Your task to perform on an android device: Clear all items from cart on costco. Search for "beats solo 3" on costco, select the first entry, add it to the cart, then select checkout. Image 0: 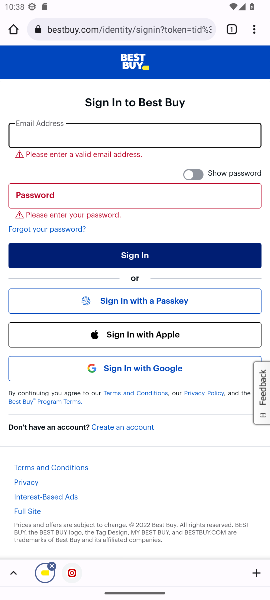
Step 0: press home button
Your task to perform on an android device: Clear all items from cart on costco. Search for "beats solo 3" on costco, select the first entry, add it to the cart, then select checkout. Image 1: 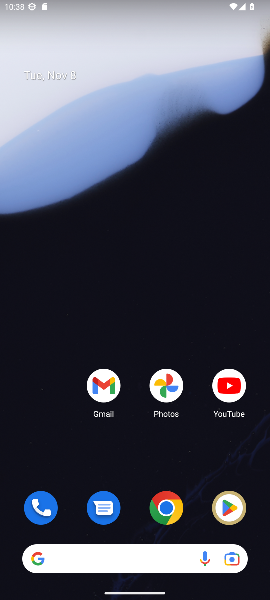
Step 1: click (179, 506)
Your task to perform on an android device: Clear all items from cart on costco. Search for "beats solo 3" on costco, select the first entry, add it to the cart, then select checkout. Image 2: 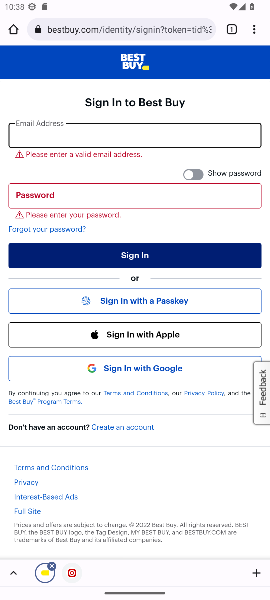
Step 2: click (58, 33)
Your task to perform on an android device: Clear all items from cart on costco. Search for "beats solo 3" on costco, select the first entry, add it to the cart, then select checkout. Image 3: 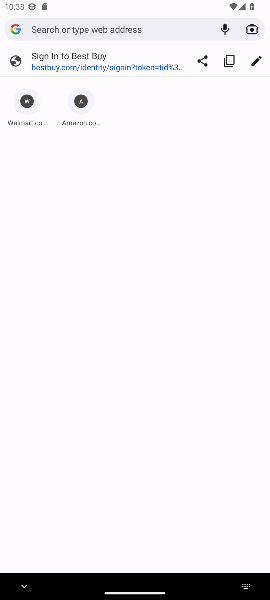
Step 3: type "costco"
Your task to perform on an android device: Clear all items from cart on costco. Search for "beats solo 3" on costco, select the first entry, add it to the cart, then select checkout. Image 4: 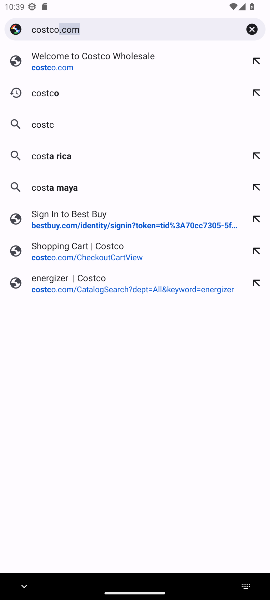
Step 4: type ""
Your task to perform on an android device: Clear all items from cart on costco. Search for "beats solo 3" on costco, select the first entry, add it to the cart, then select checkout. Image 5: 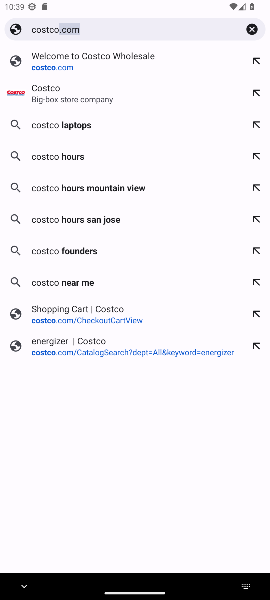
Step 5: click (28, 86)
Your task to perform on an android device: Clear all items from cart on costco. Search for "beats solo 3" on costco, select the first entry, add it to the cart, then select checkout. Image 6: 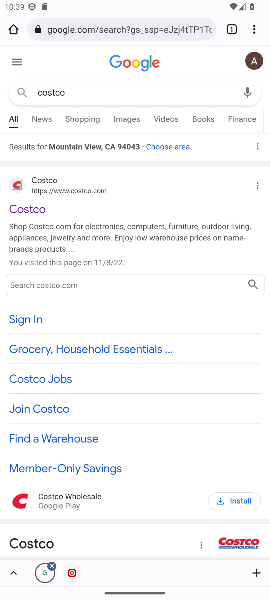
Step 6: click (34, 203)
Your task to perform on an android device: Clear all items from cart on costco. Search for "beats solo 3" on costco, select the first entry, add it to the cart, then select checkout. Image 7: 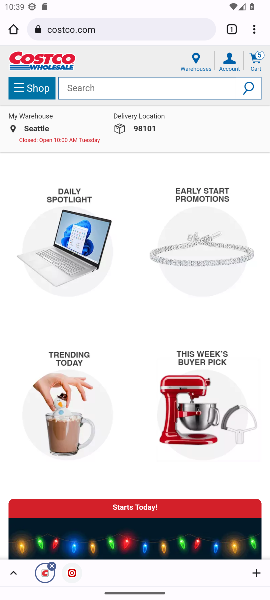
Step 7: click (122, 90)
Your task to perform on an android device: Clear all items from cart on costco. Search for "beats solo 3" on costco, select the first entry, add it to the cart, then select checkout. Image 8: 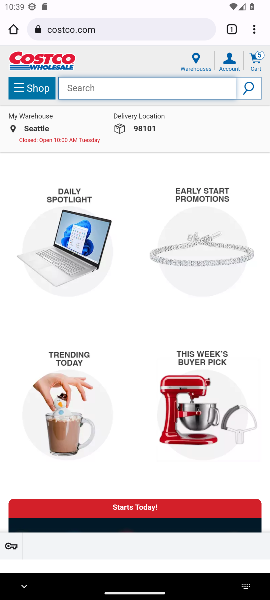
Step 8: type "beat solo 3"
Your task to perform on an android device: Clear all items from cart on costco. Search for "beats solo 3" on costco, select the first entry, add it to the cart, then select checkout. Image 9: 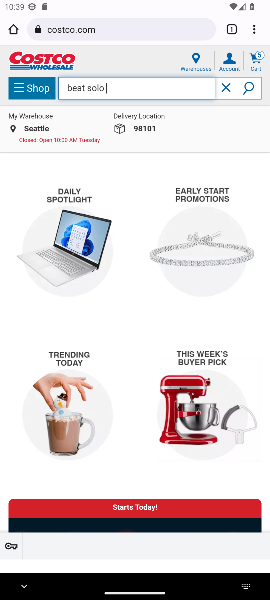
Step 9: type ""
Your task to perform on an android device: Clear all items from cart on costco. Search for "beats solo 3" on costco, select the first entry, add it to the cart, then select checkout. Image 10: 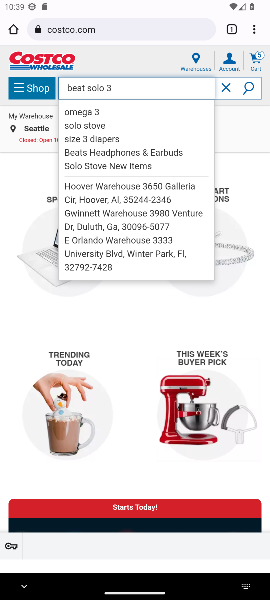
Step 10: click (80, 126)
Your task to perform on an android device: Clear all items from cart on costco. Search for "beats solo 3" on costco, select the first entry, add it to the cart, then select checkout. Image 11: 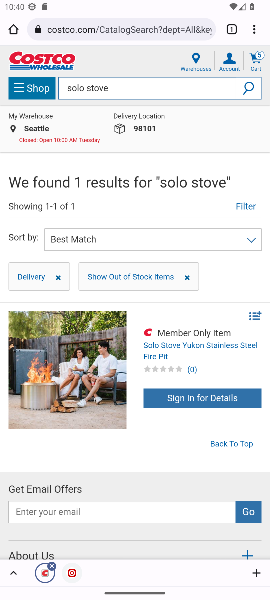
Step 11: drag from (63, 377) to (113, 177)
Your task to perform on an android device: Clear all items from cart on costco. Search for "beats solo 3" on costco, select the first entry, add it to the cart, then select checkout. Image 12: 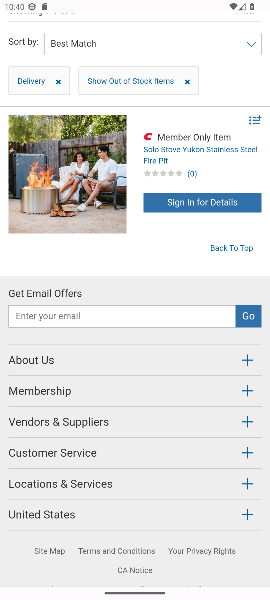
Step 12: drag from (79, 198) to (141, 573)
Your task to perform on an android device: Clear all items from cart on costco. Search for "beats solo 3" on costco, select the first entry, add it to the cart, then select checkout. Image 13: 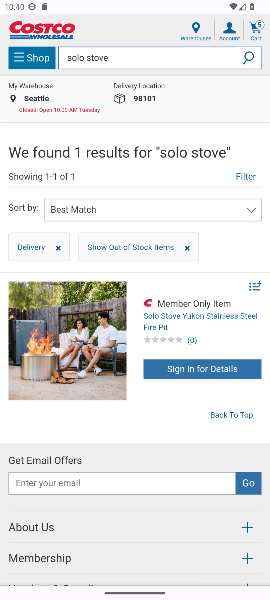
Step 13: click (113, 57)
Your task to perform on an android device: Clear all items from cart on costco. Search for "beats solo 3" on costco, select the first entry, add it to the cart, then select checkout. Image 14: 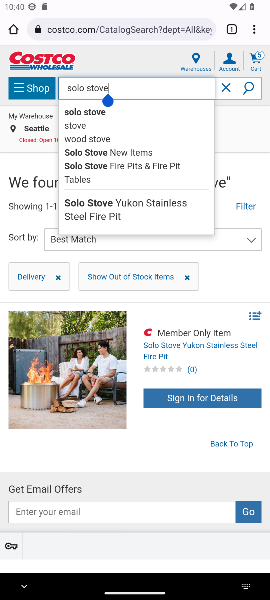
Step 14: click (226, 87)
Your task to perform on an android device: Clear all items from cart on costco. Search for "beats solo 3" on costco, select the first entry, add it to the cart, then select checkout. Image 15: 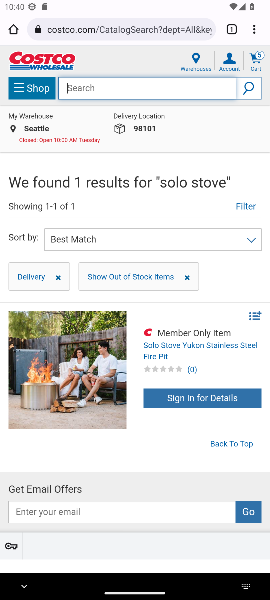
Step 15: type "beat solo 3"
Your task to perform on an android device: Clear all items from cart on costco. Search for "beats solo 3" on costco, select the first entry, add it to the cart, then select checkout. Image 16: 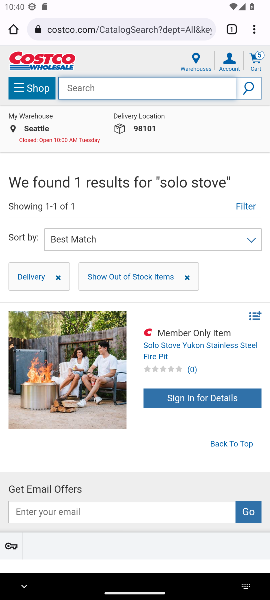
Step 16: type ""
Your task to perform on an android device: Clear all items from cart on costco. Search for "beats solo 3" on costco, select the first entry, add it to the cart, then select checkout. Image 17: 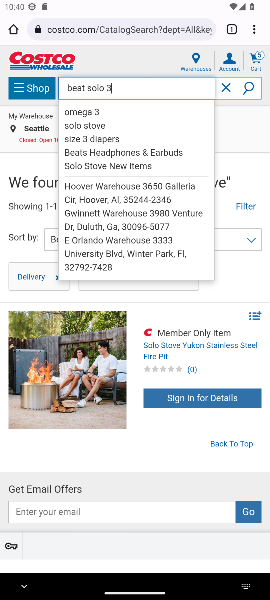
Step 17: click (107, 139)
Your task to perform on an android device: Clear all items from cart on costco. Search for "beats solo 3" on costco, select the first entry, add it to the cart, then select checkout. Image 18: 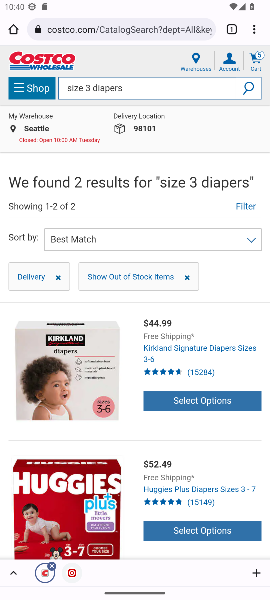
Step 18: drag from (114, 379) to (144, 45)
Your task to perform on an android device: Clear all items from cart on costco. Search for "beats solo 3" on costco, select the first entry, add it to the cart, then select checkout. Image 19: 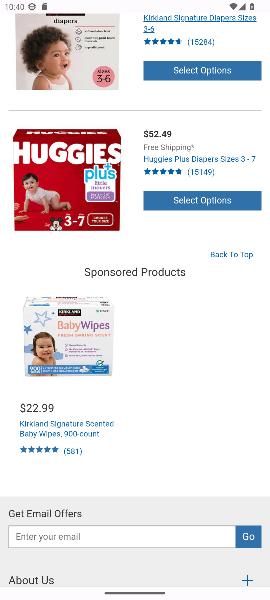
Step 19: drag from (208, 204) to (159, 583)
Your task to perform on an android device: Clear all items from cart on costco. Search for "beats solo 3" on costco, select the first entry, add it to the cart, then select checkout. Image 20: 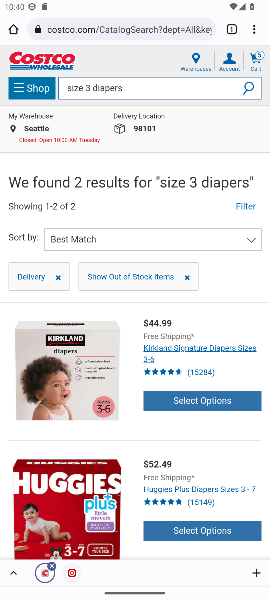
Step 20: click (256, 58)
Your task to perform on an android device: Clear all items from cart on costco. Search for "beats solo 3" on costco, select the first entry, add it to the cart, then select checkout. Image 21: 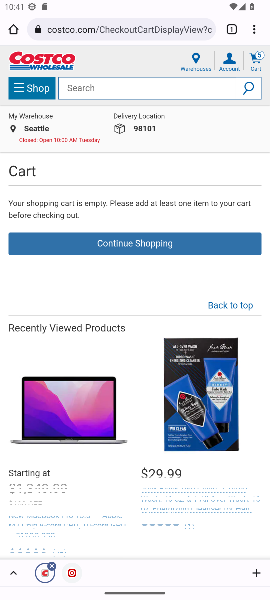
Step 21: drag from (125, 349) to (96, 75)
Your task to perform on an android device: Clear all items from cart on costco. Search for "beats solo 3" on costco, select the first entry, add it to the cart, then select checkout. Image 22: 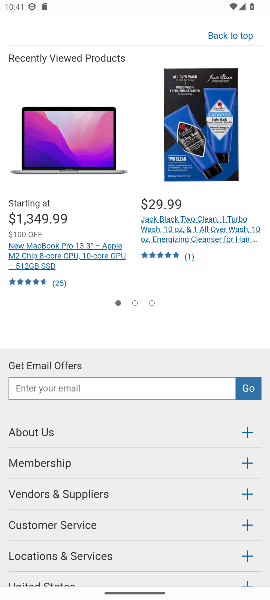
Step 22: drag from (98, 499) to (109, 96)
Your task to perform on an android device: Clear all items from cart on costco. Search for "beats solo 3" on costco, select the first entry, add it to the cart, then select checkout. Image 23: 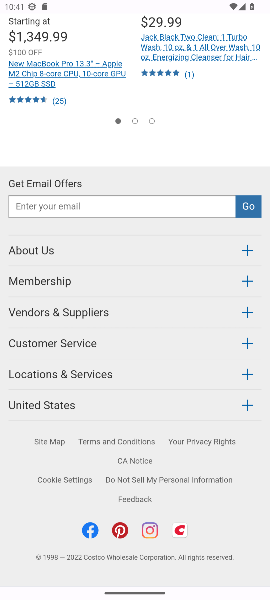
Step 23: drag from (189, 127) to (168, 593)
Your task to perform on an android device: Clear all items from cart on costco. Search for "beats solo 3" on costco, select the first entry, add it to the cart, then select checkout. Image 24: 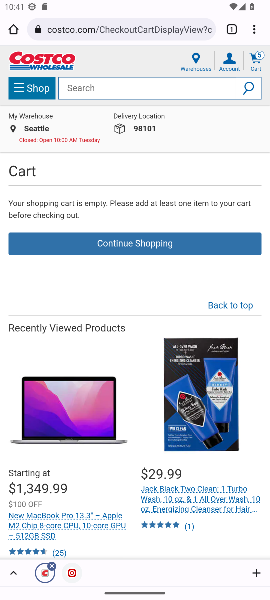
Step 24: click (258, 56)
Your task to perform on an android device: Clear all items from cart on costco. Search for "beats solo 3" on costco, select the first entry, add it to the cart, then select checkout. Image 25: 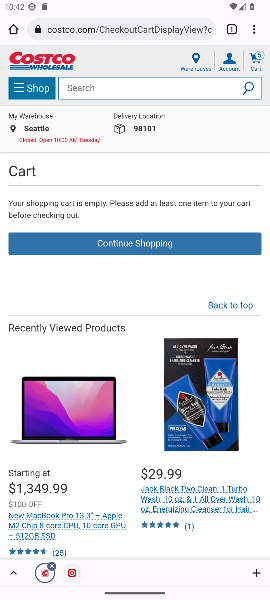
Step 25: task complete